Your task to perform on an android device: Open the map Image 0: 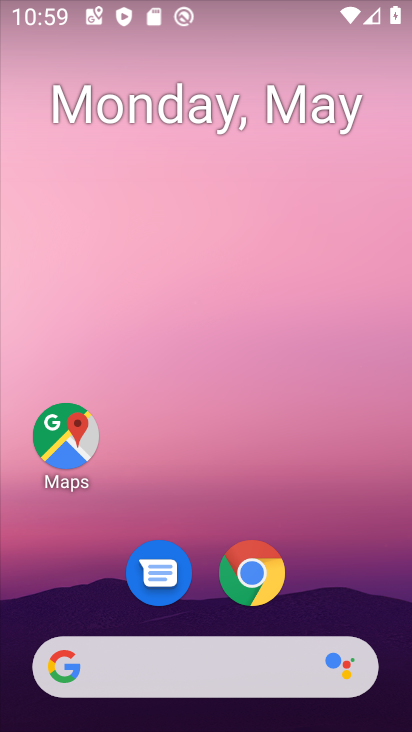
Step 0: click (71, 434)
Your task to perform on an android device: Open the map Image 1: 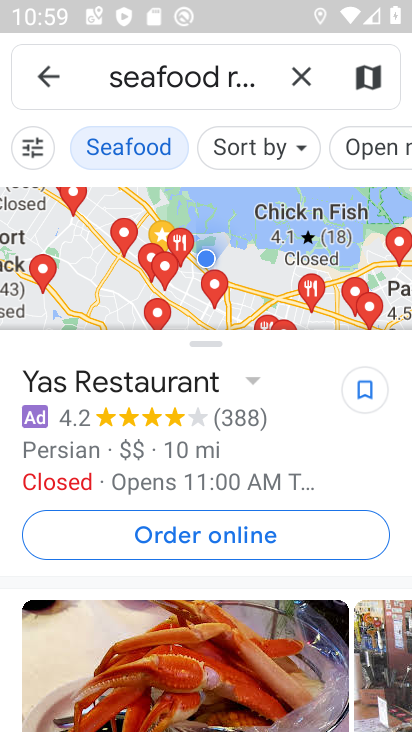
Step 1: task complete